Your task to perform on an android device: check battery use Image 0: 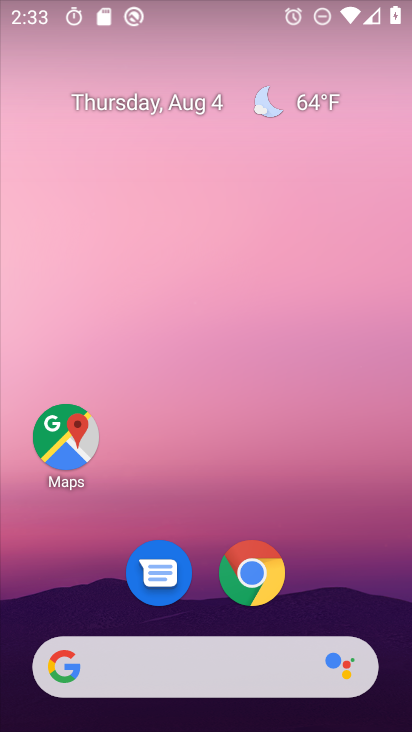
Step 0: drag from (336, 564) to (391, 44)
Your task to perform on an android device: check battery use Image 1: 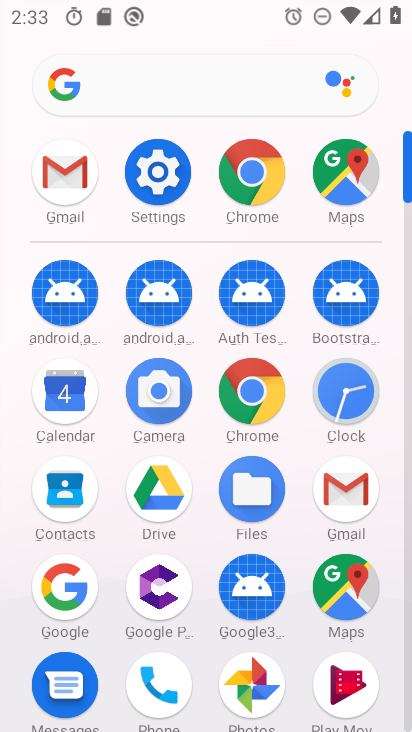
Step 1: click (165, 178)
Your task to perform on an android device: check battery use Image 2: 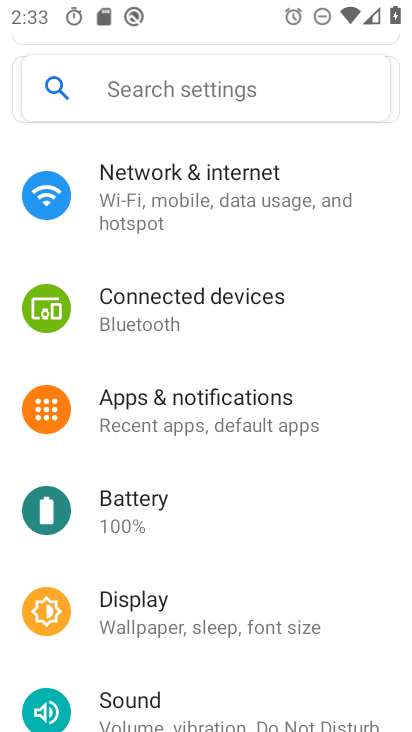
Step 2: drag from (211, 555) to (303, 210)
Your task to perform on an android device: check battery use Image 3: 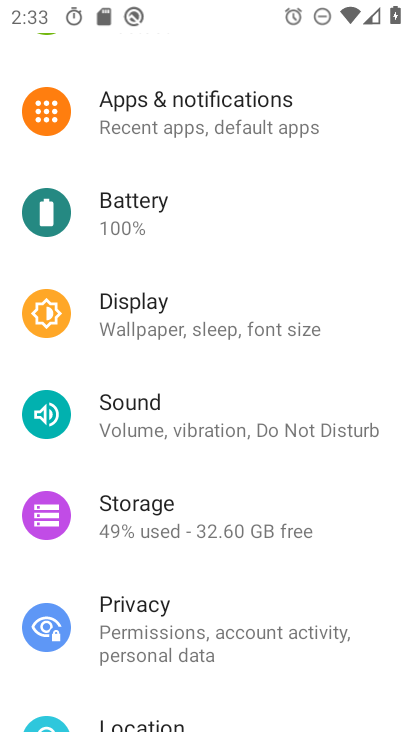
Step 3: click (180, 217)
Your task to perform on an android device: check battery use Image 4: 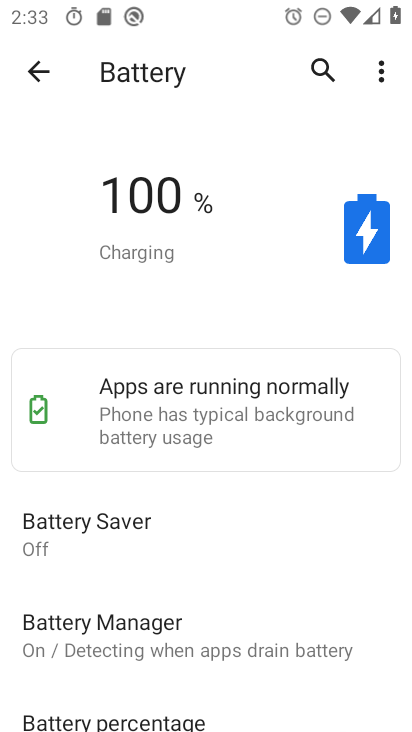
Step 4: click (388, 62)
Your task to perform on an android device: check battery use Image 5: 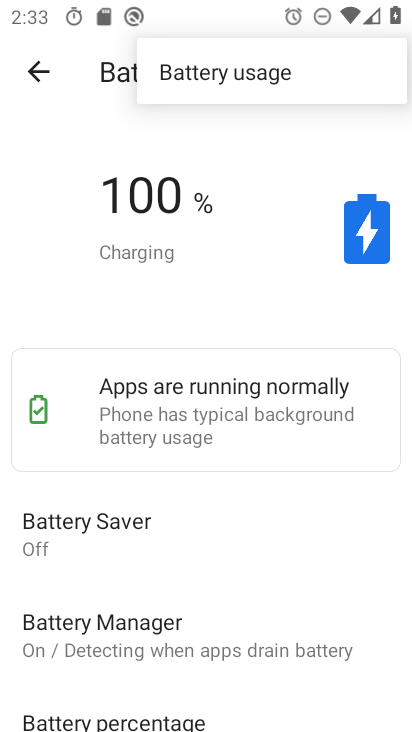
Step 5: click (273, 66)
Your task to perform on an android device: check battery use Image 6: 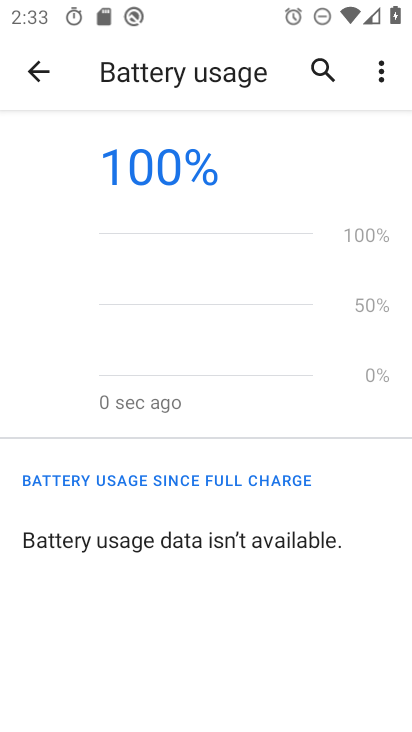
Step 6: task complete